Your task to perform on an android device: Do I have any events today? Image 0: 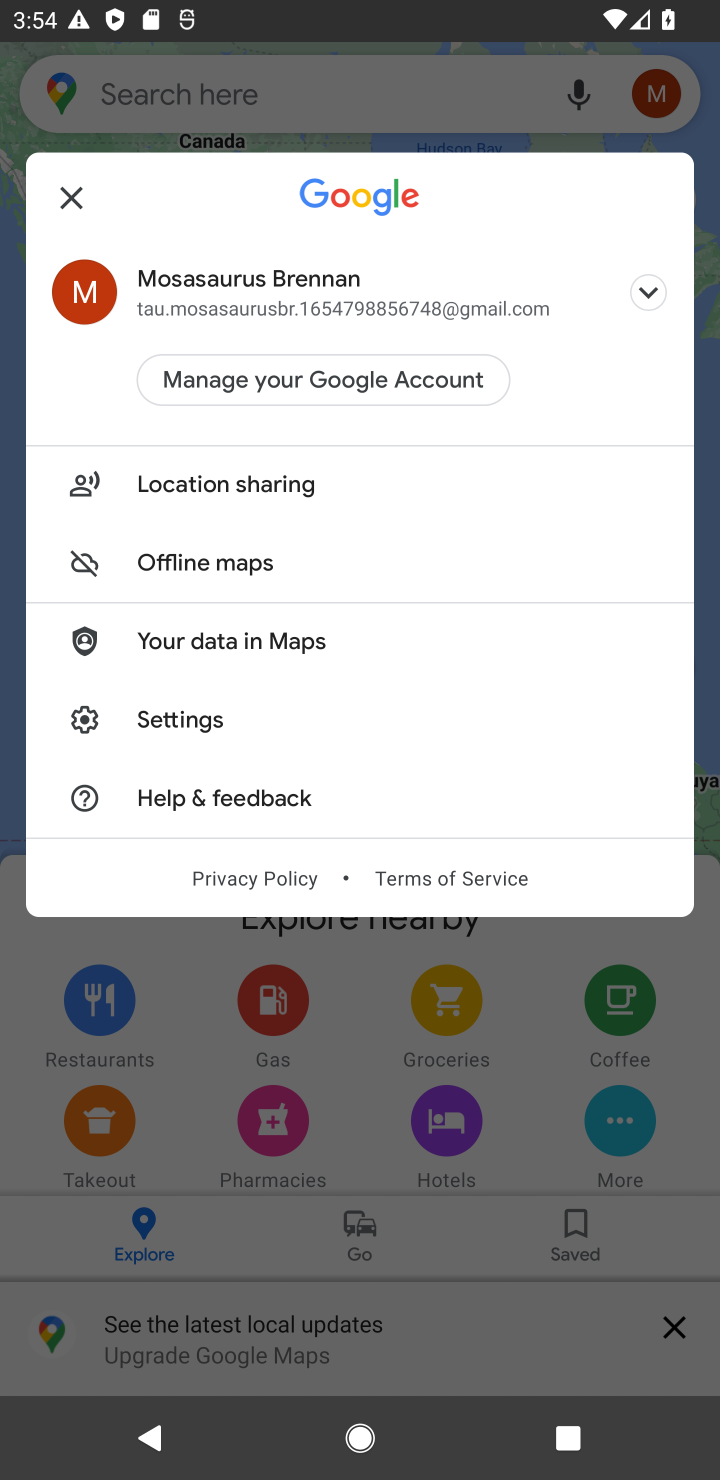
Step 0: press back button
Your task to perform on an android device: Do I have any events today? Image 1: 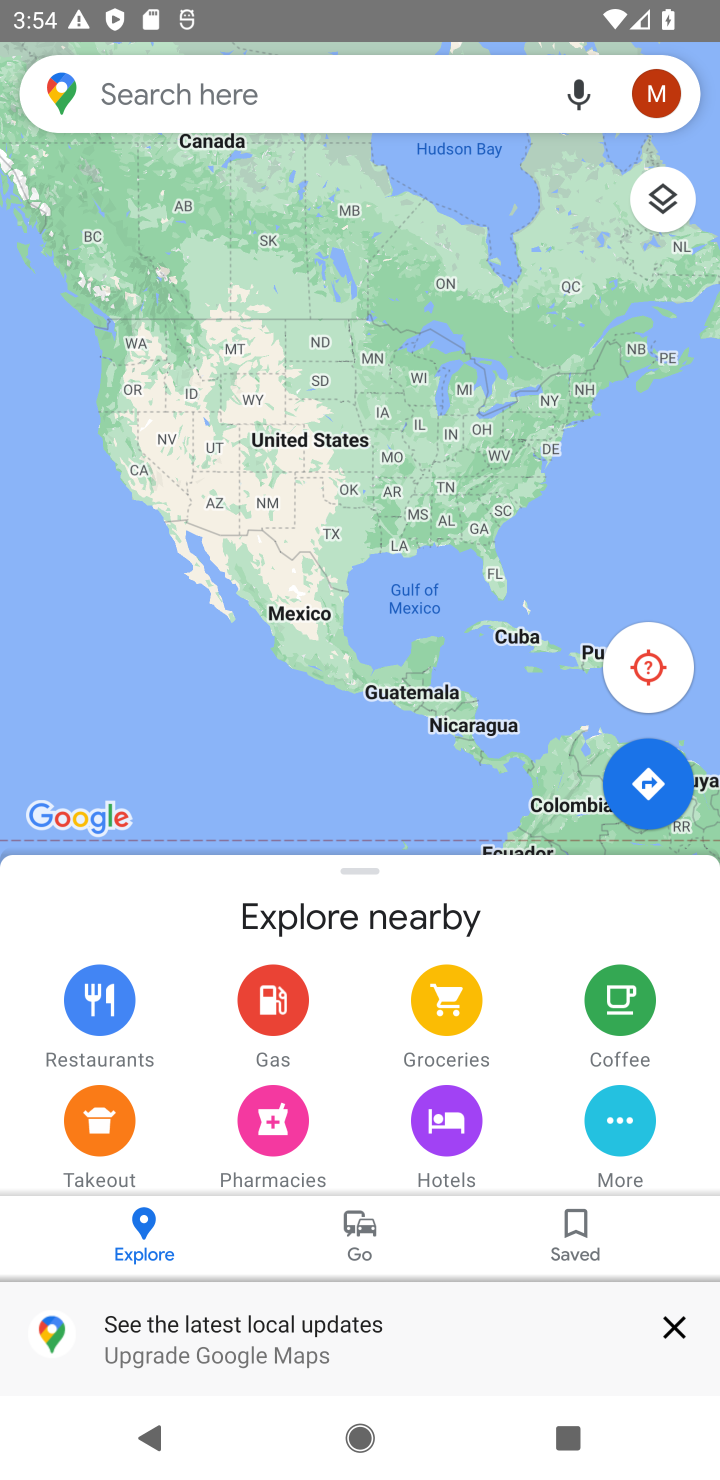
Step 1: press back button
Your task to perform on an android device: Do I have any events today? Image 2: 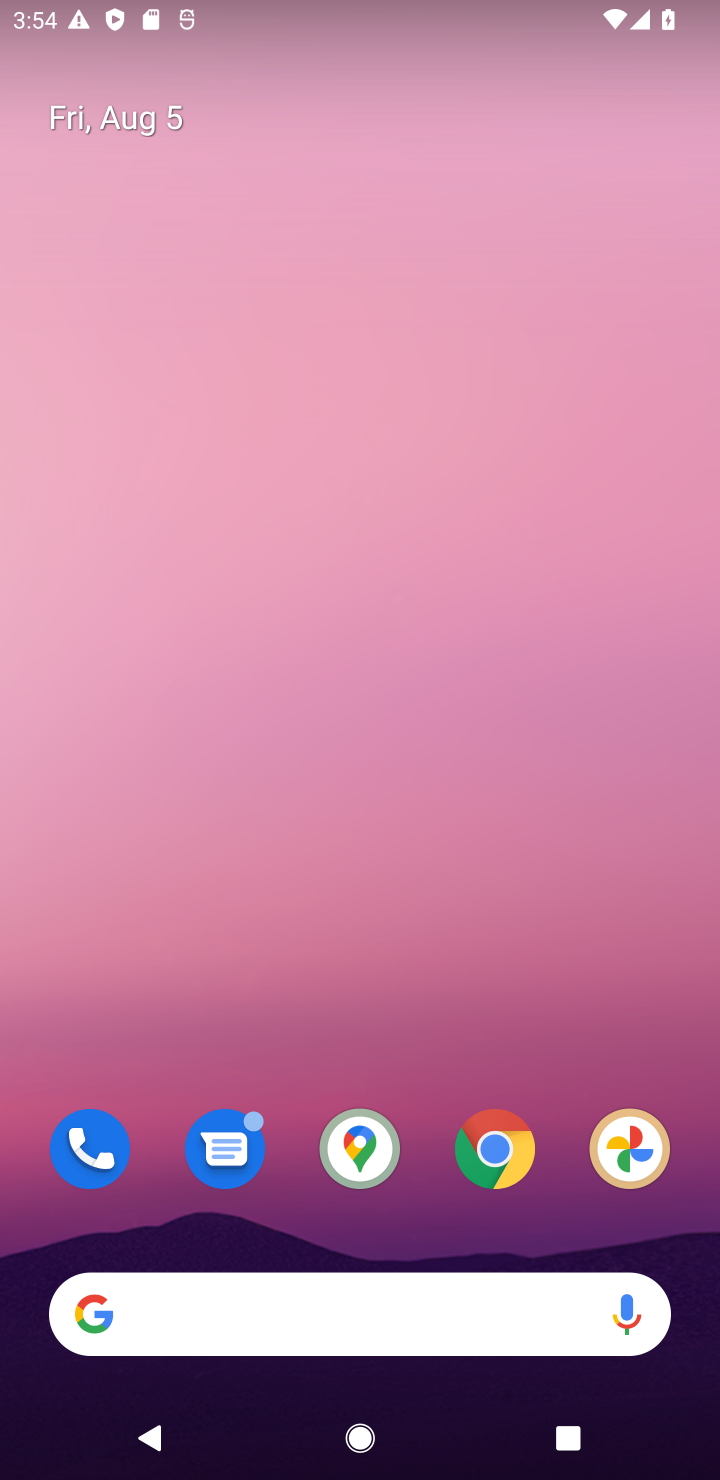
Step 2: drag from (330, 1249) to (403, 40)
Your task to perform on an android device: Do I have any events today? Image 3: 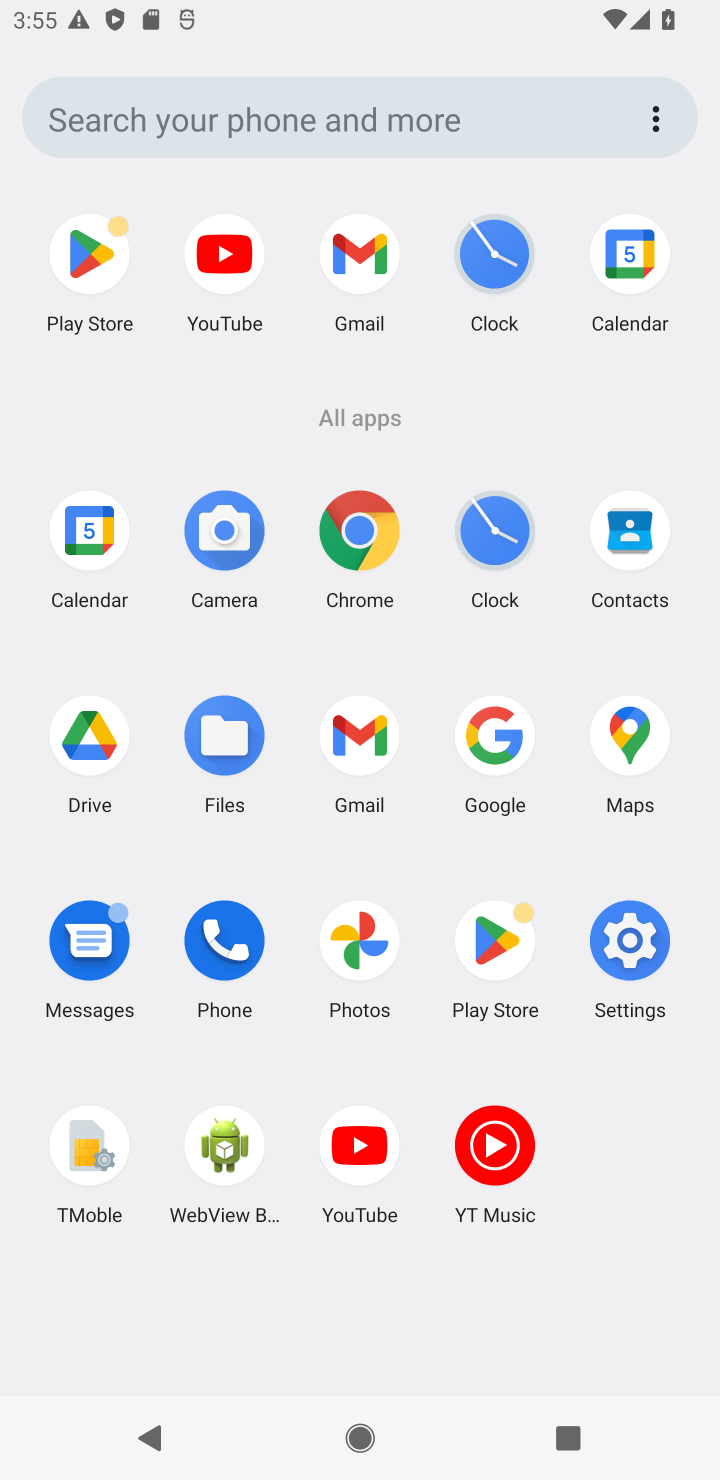
Step 3: click (631, 265)
Your task to perform on an android device: Do I have any events today? Image 4: 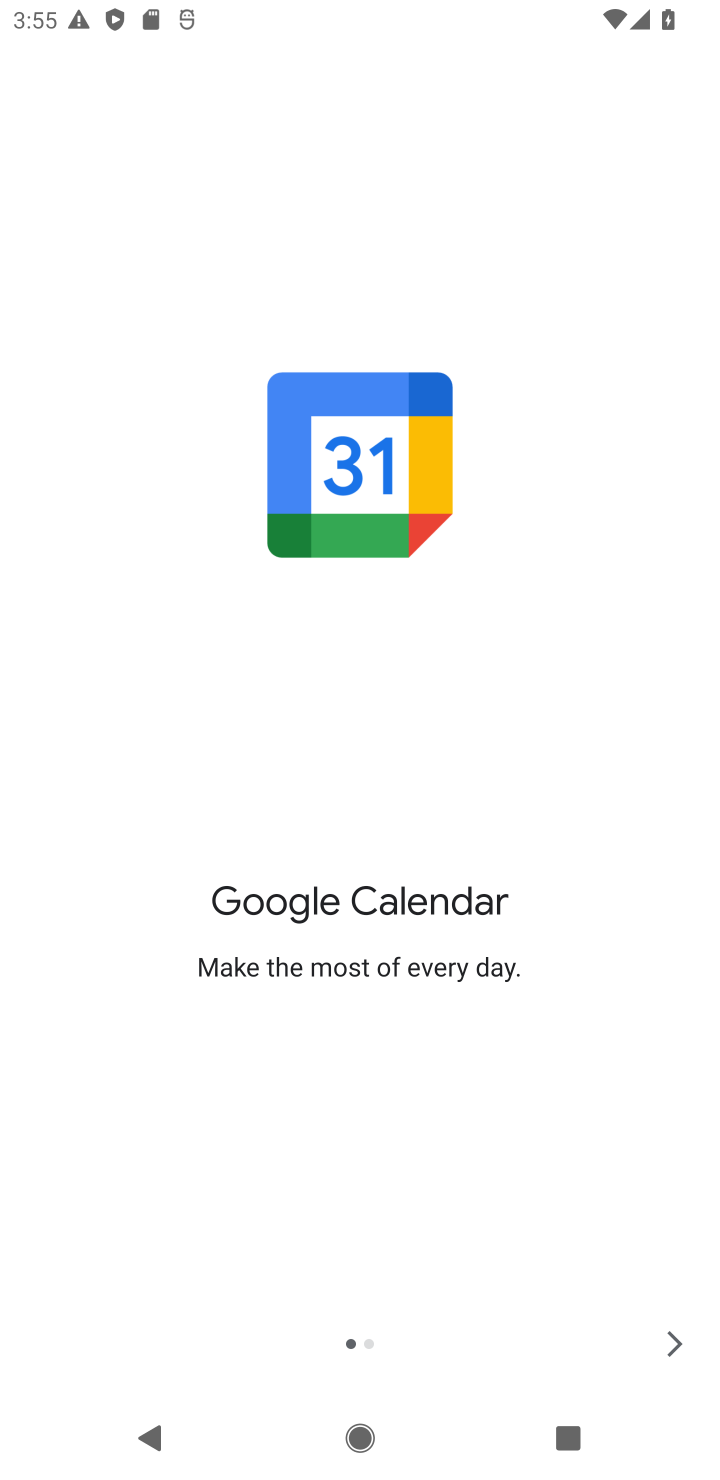
Step 4: click (697, 1354)
Your task to perform on an android device: Do I have any events today? Image 5: 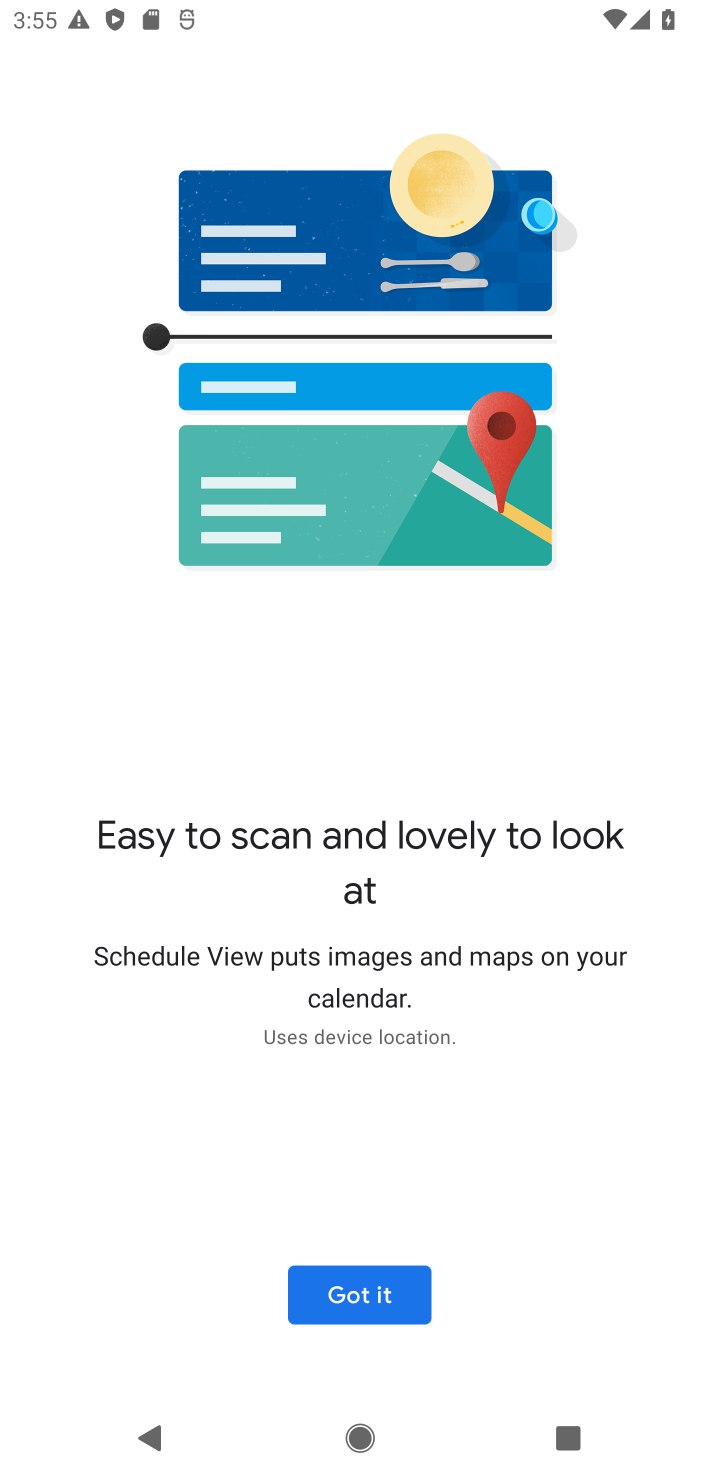
Step 5: click (673, 1350)
Your task to perform on an android device: Do I have any events today? Image 6: 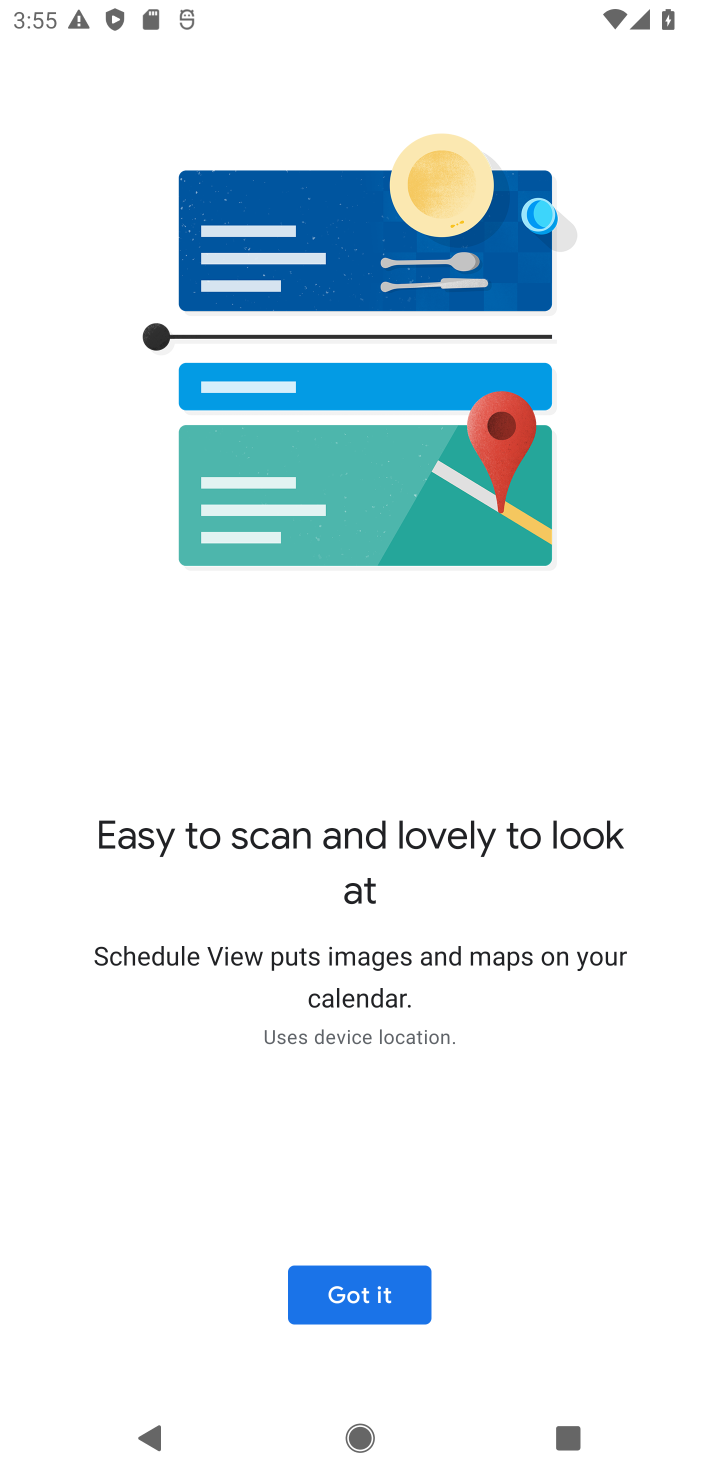
Step 6: click (410, 1304)
Your task to perform on an android device: Do I have any events today? Image 7: 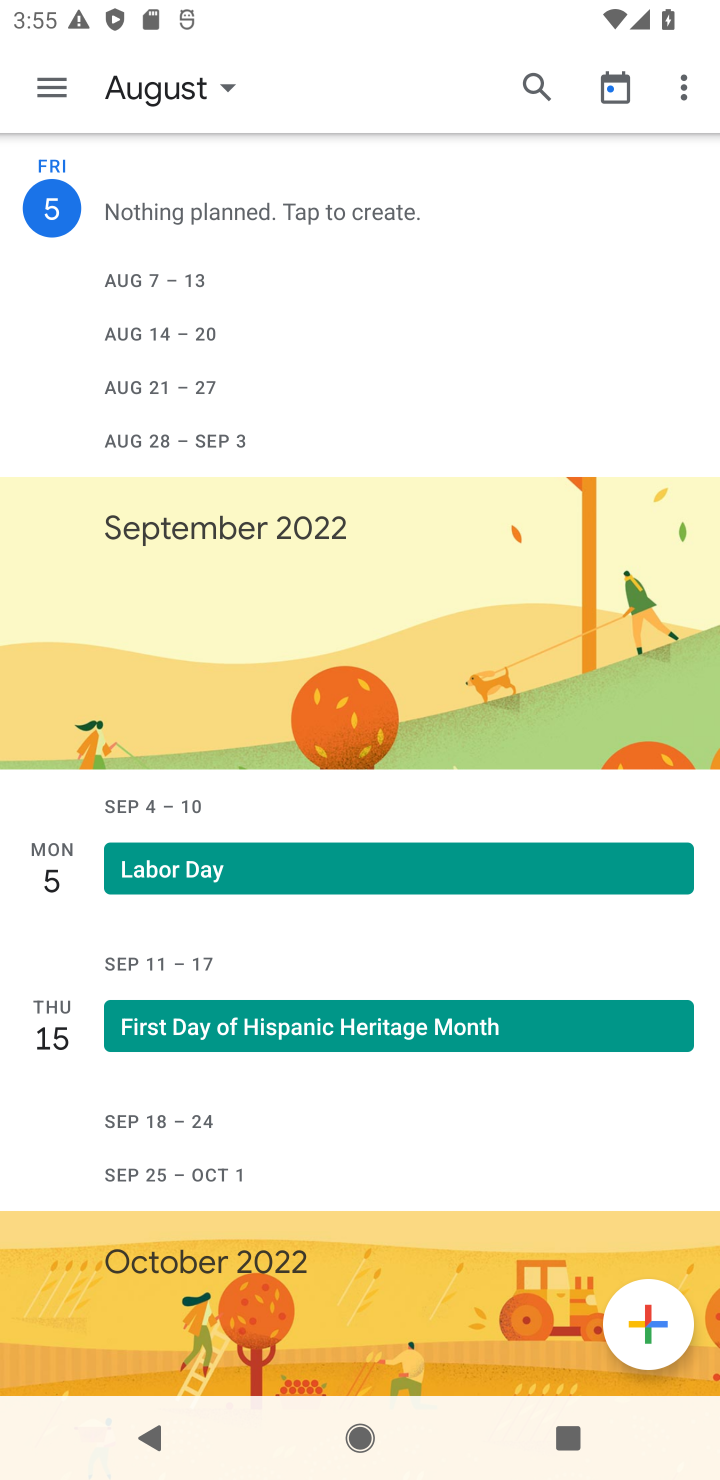
Step 7: task complete